Your task to perform on an android device: Go to Amazon Image 0: 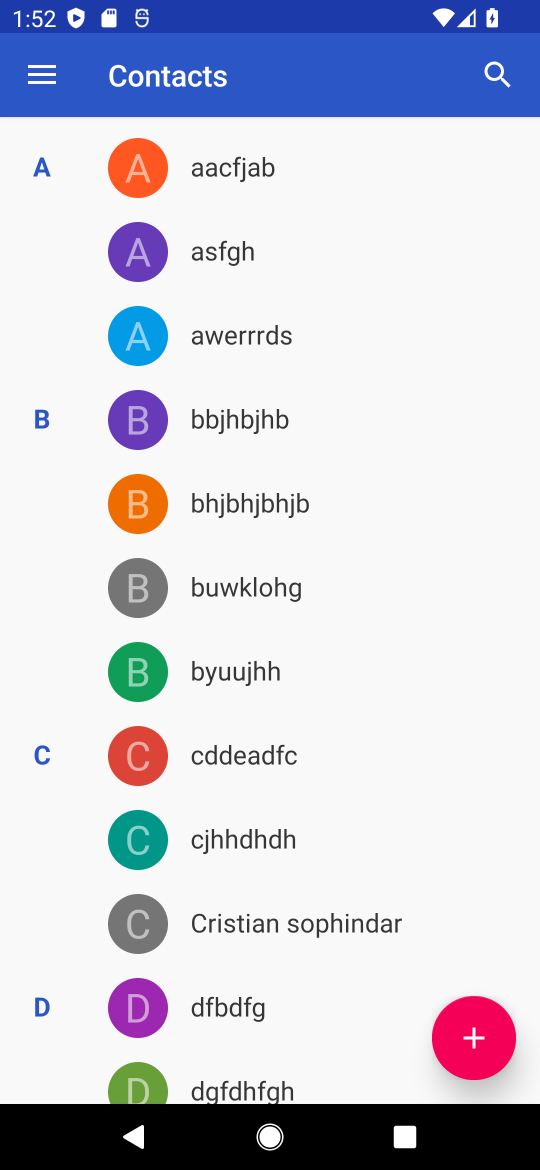
Step 0: press home button
Your task to perform on an android device: Go to Amazon Image 1: 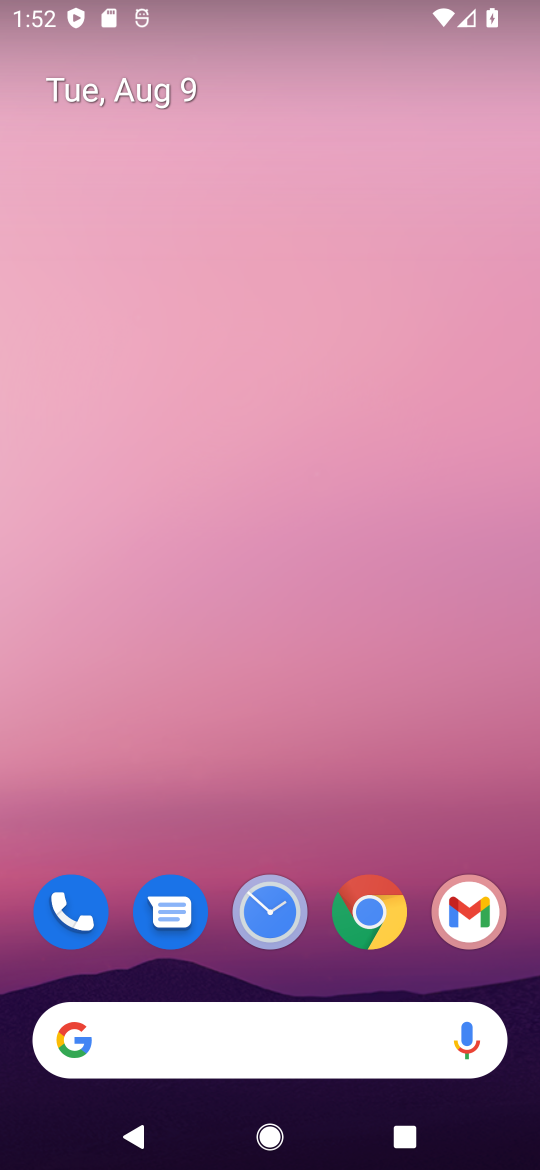
Step 1: click (367, 907)
Your task to perform on an android device: Go to Amazon Image 2: 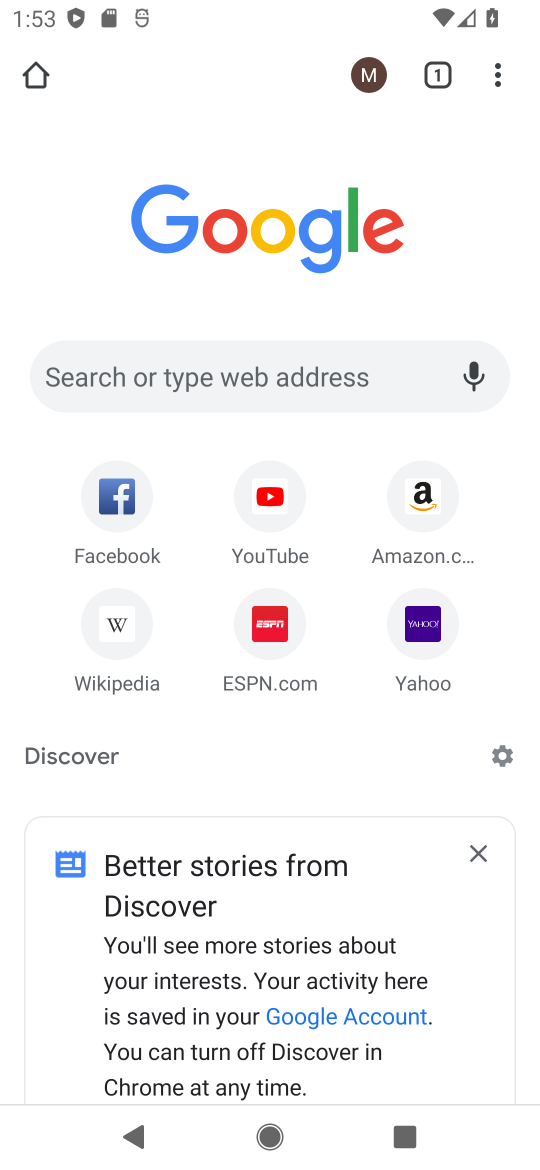
Step 2: click (408, 491)
Your task to perform on an android device: Go to Amazon Image 3: 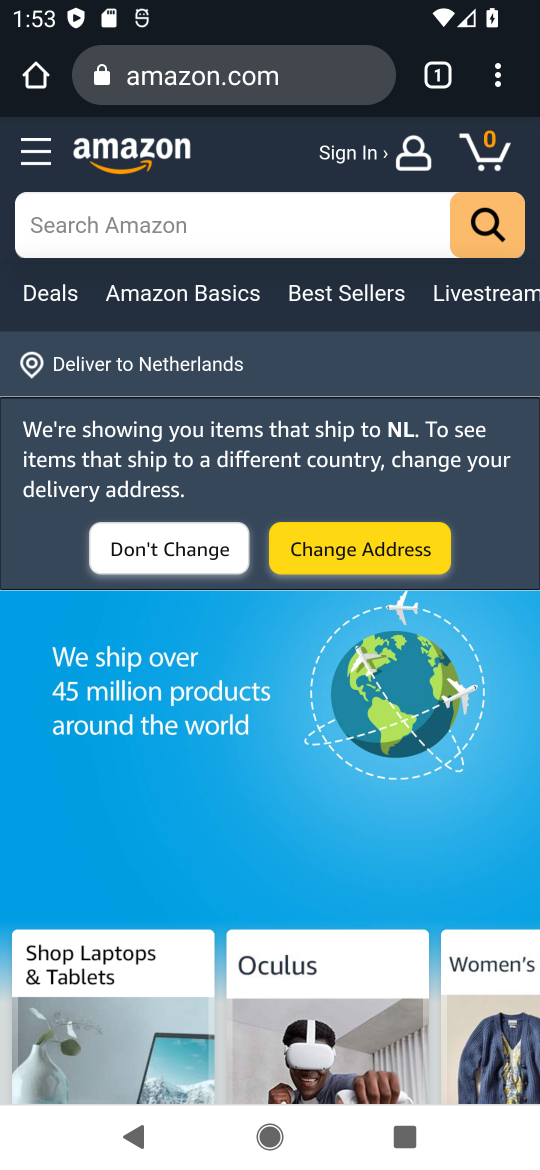
Step 3: task complete